Your task to perform on an android device: Play the new Demi Lovato video on YouTube Image 0: 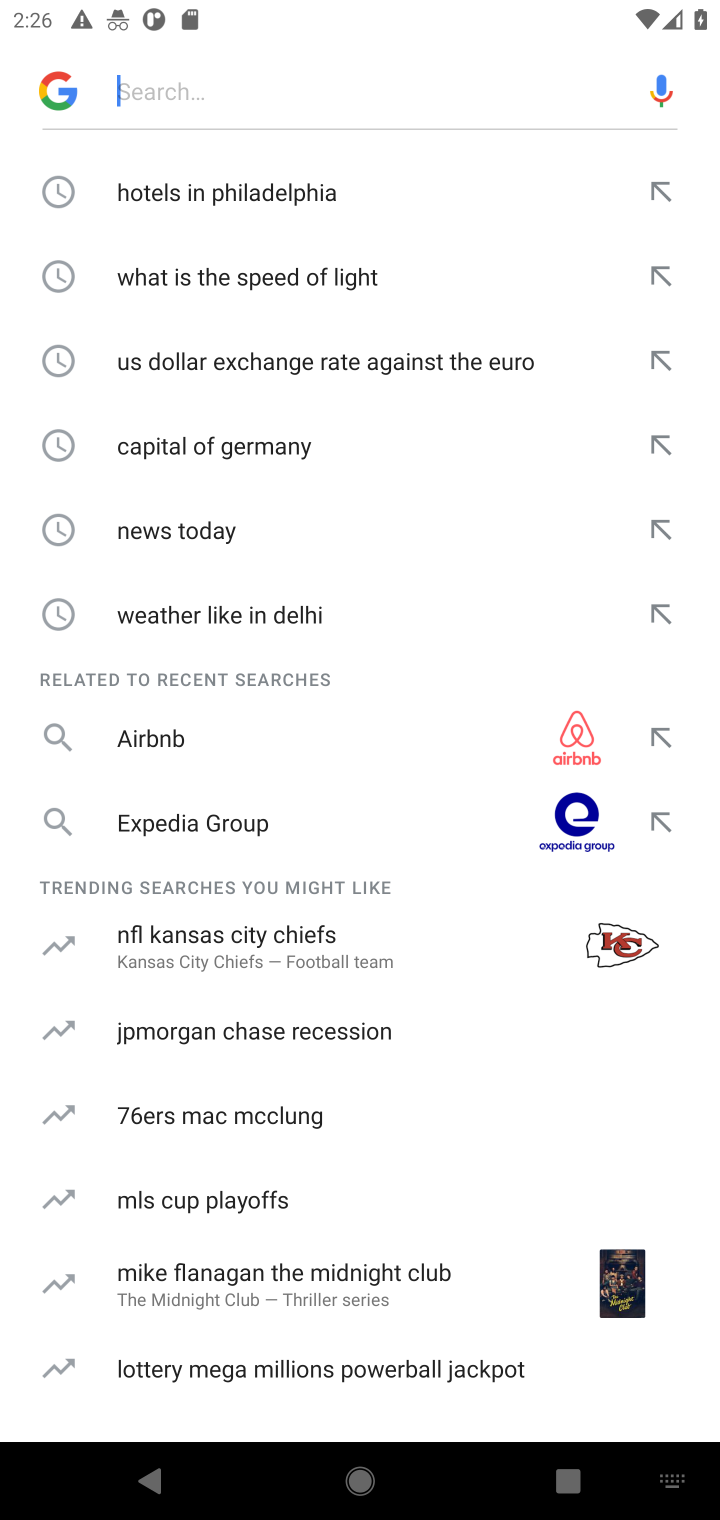
Step 0: press home button
Your task to perform on an android device: Play the new Demi Lovato video on YouTube Image 1: 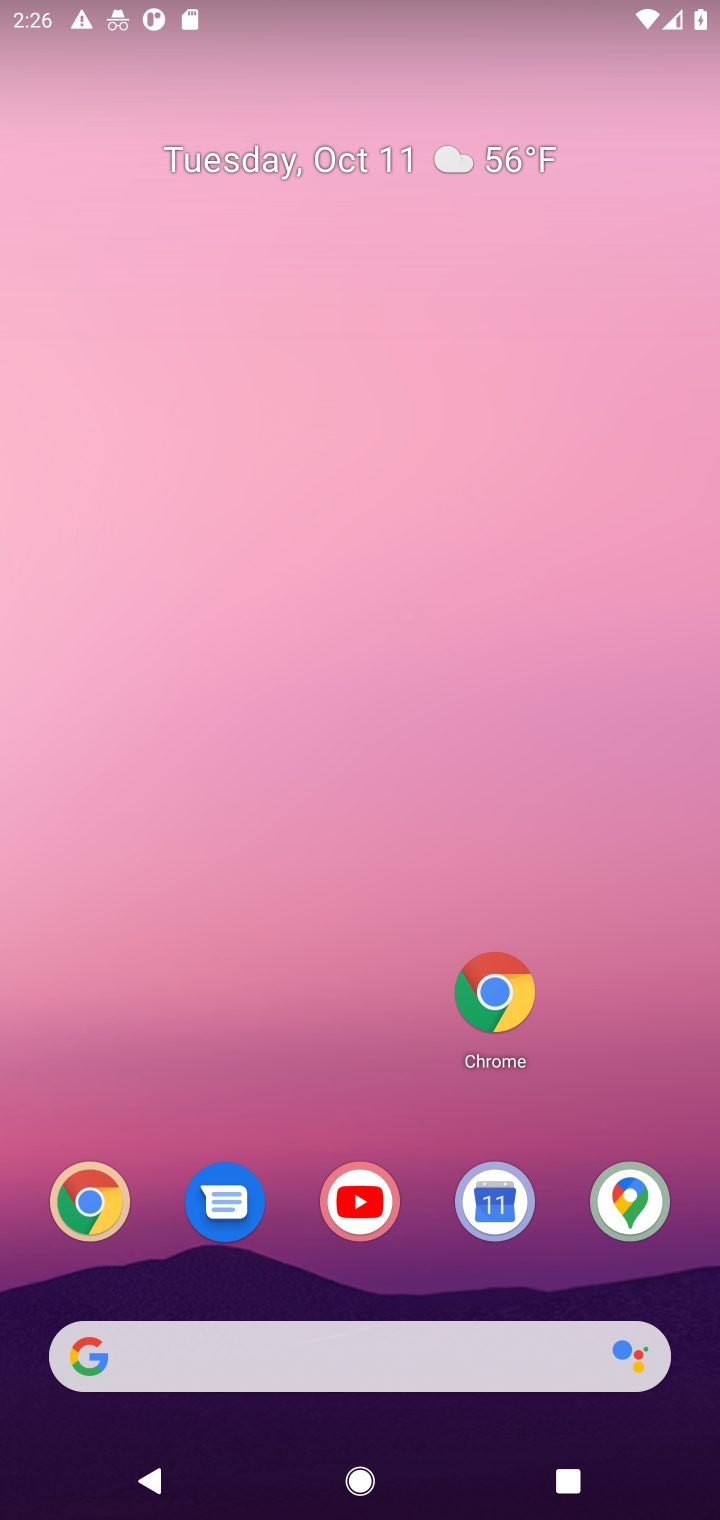
Step 1: click (499, 989)
Your task to perform on an android device: Play the new Demi Lovato video on YouTube Image 2: 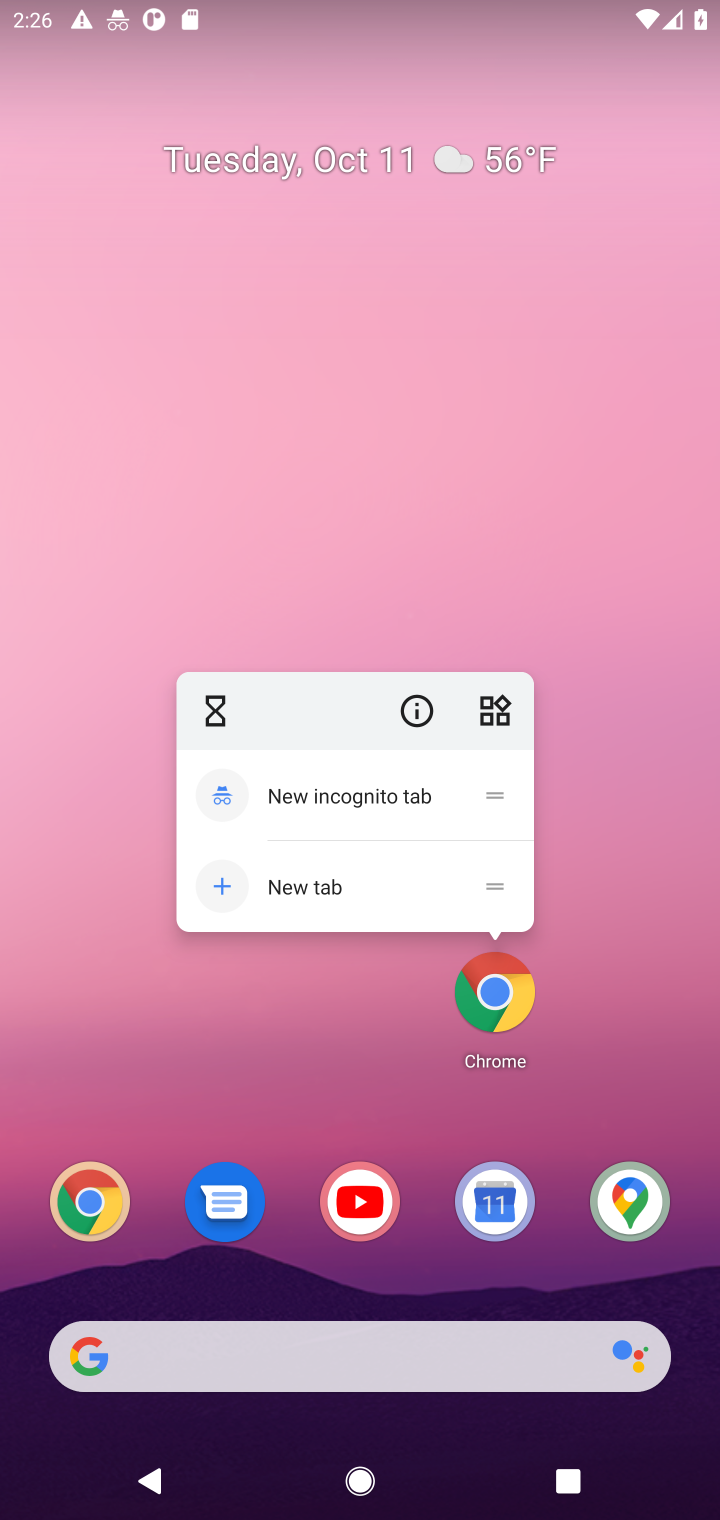
Step 2: click (499, 990)
Your task to perform on an android device: Play the new Demi Lovato video on YouTube Image 3: 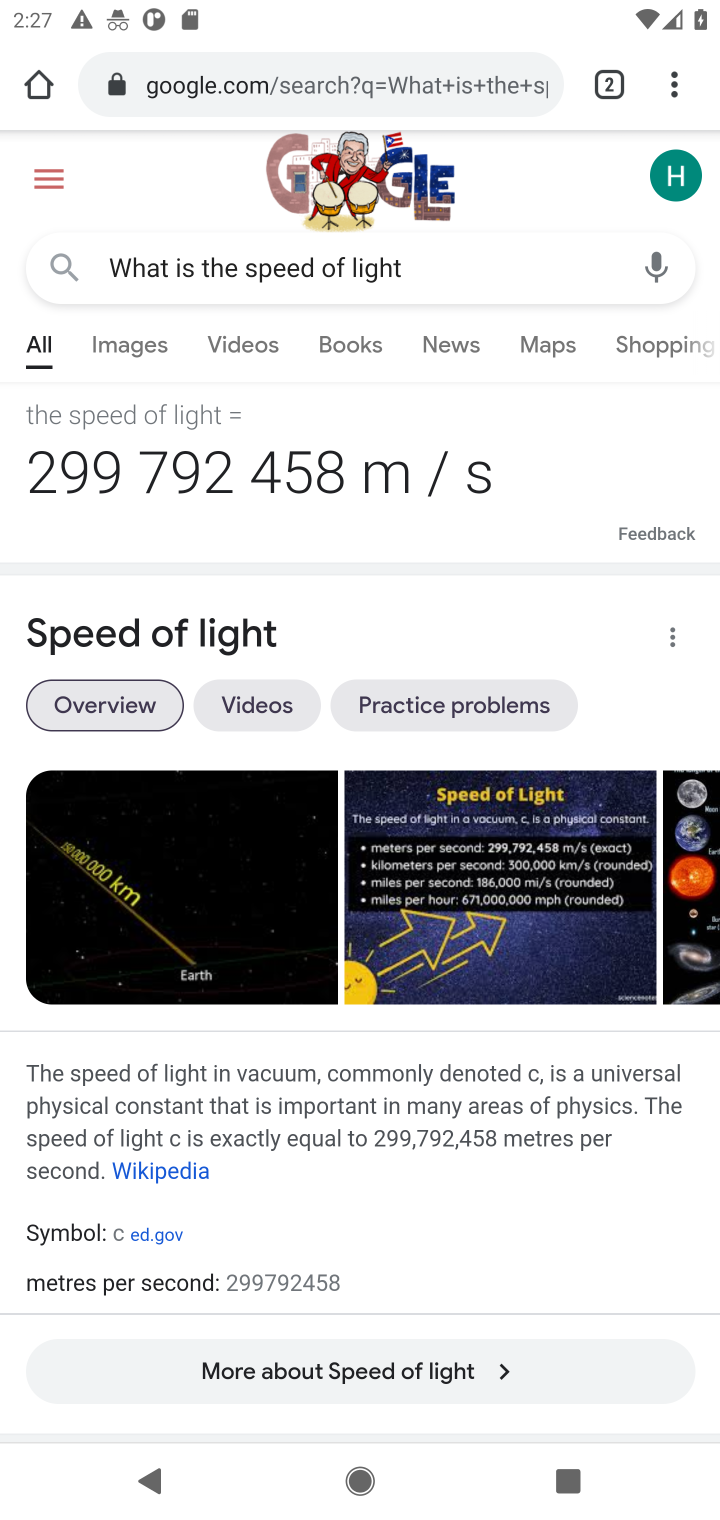
Step 3: press home button
Your task to perform on an android device: Play the new Demi Lovato video on YouTube Image 4: 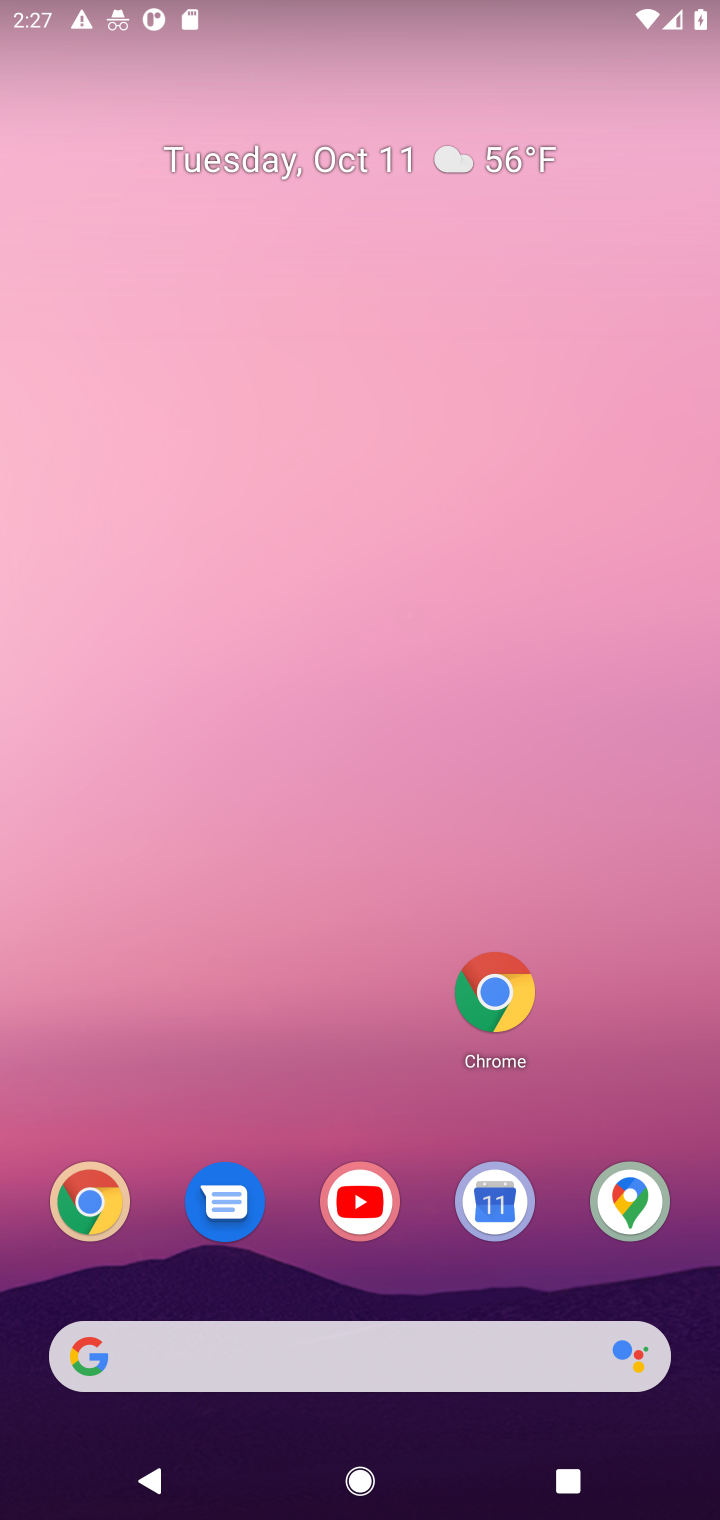
Step 4: click (353, 1205)
Your task to perform on an android device: Play the new Demi Lovato video on YouTube Image 5: 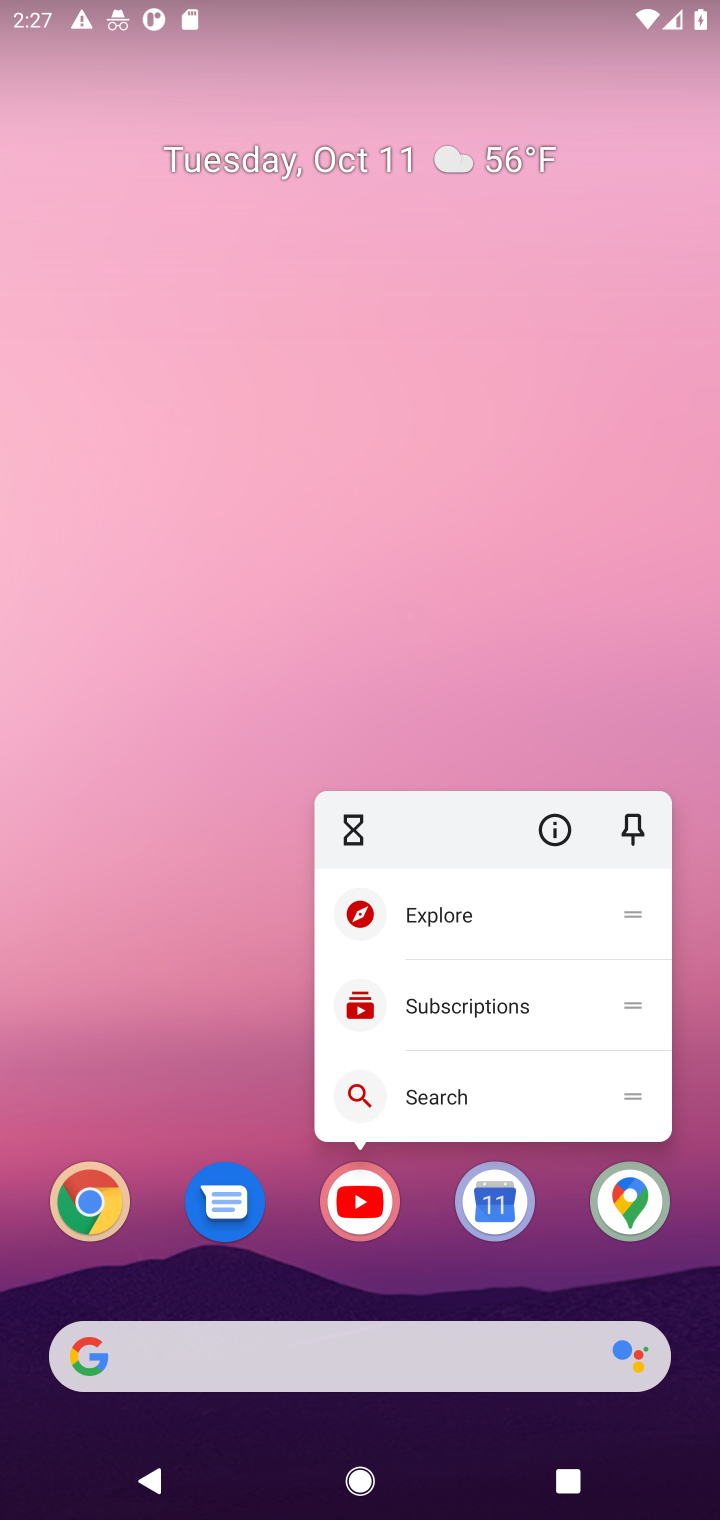
Step 5: click (353, 1205)
Your task to perform on an android device: Play the new Demi Lovato video on YouTube Image 6: 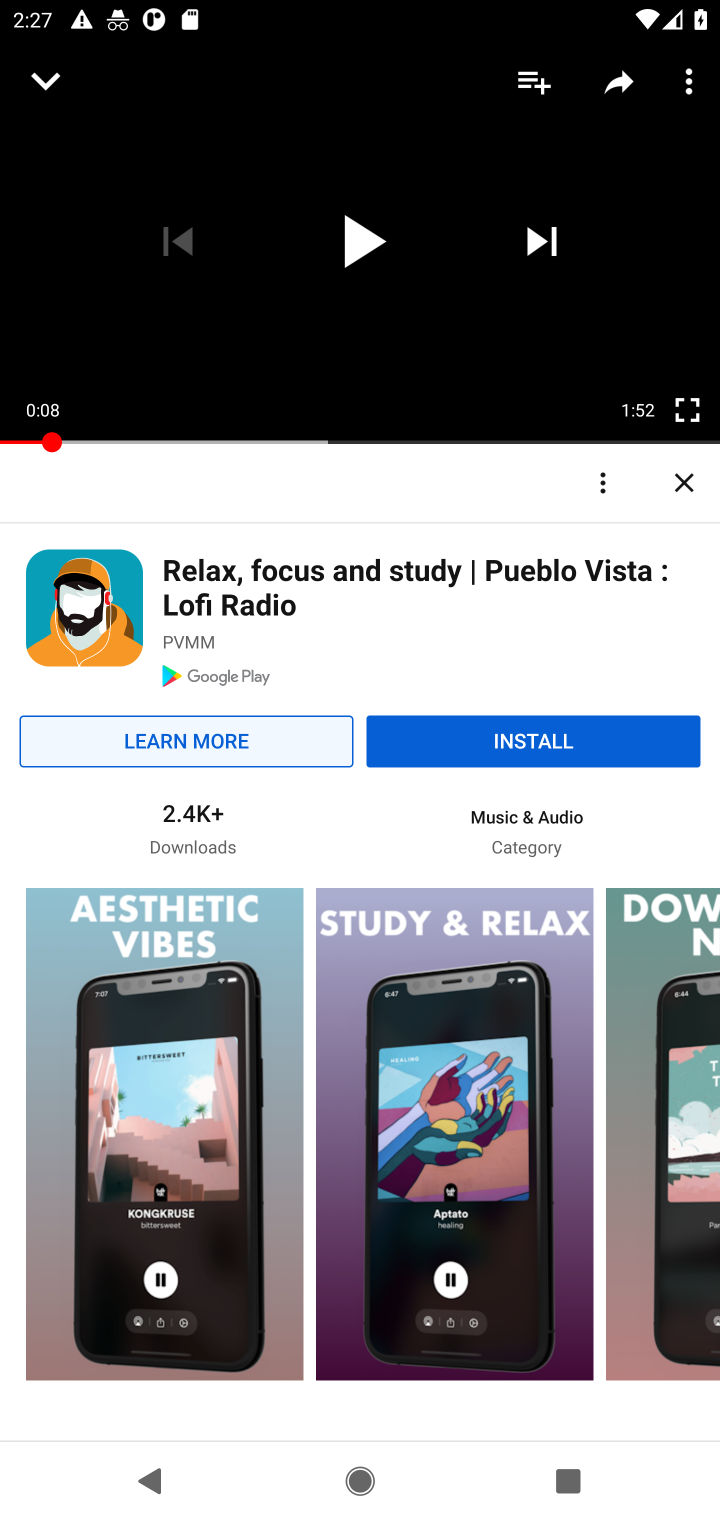
Step 6: press back button
Your task to perform on an android device: Play the new Demi Lovato video on YouTube Image 7: 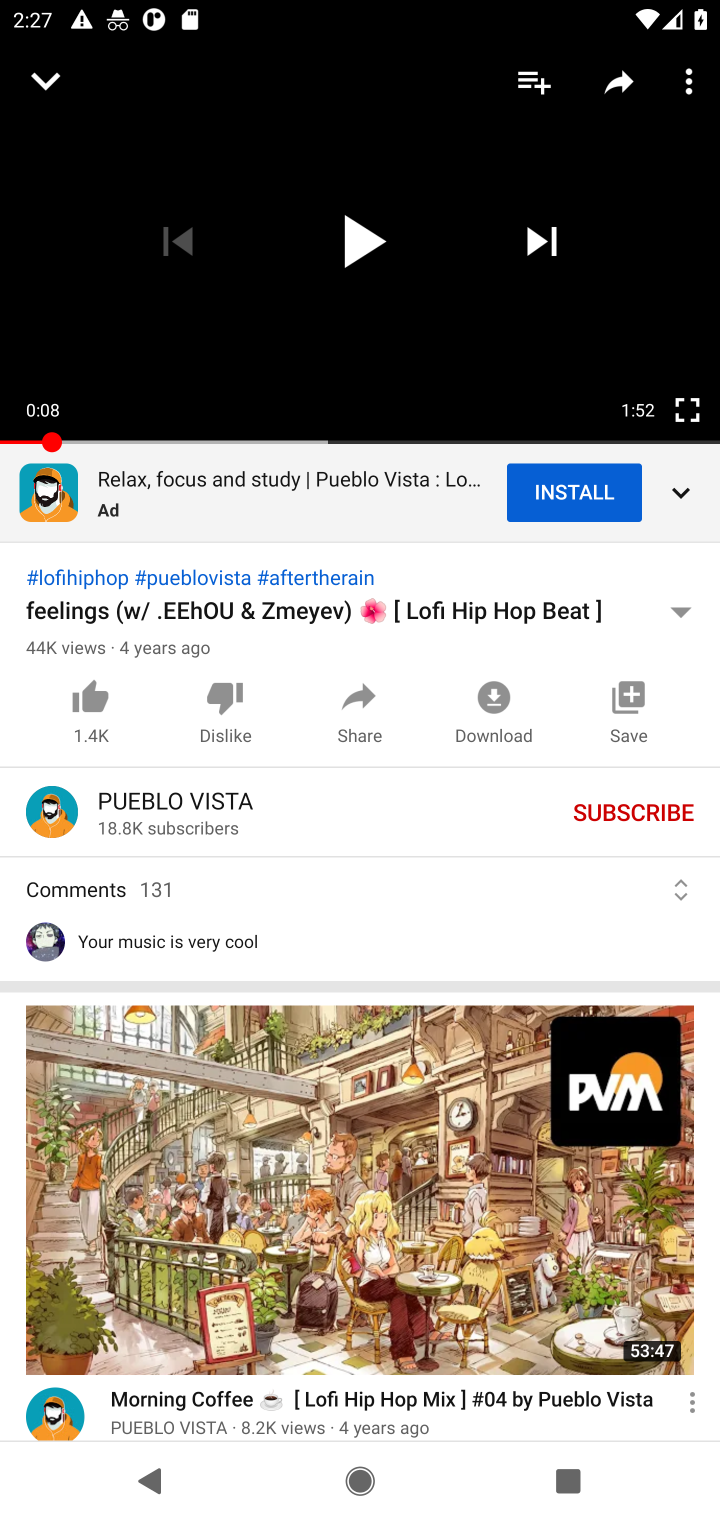
Step 7: press back button
Your task to perform on an android device: Play the new Demi Lovato video on YouTube Image 8: 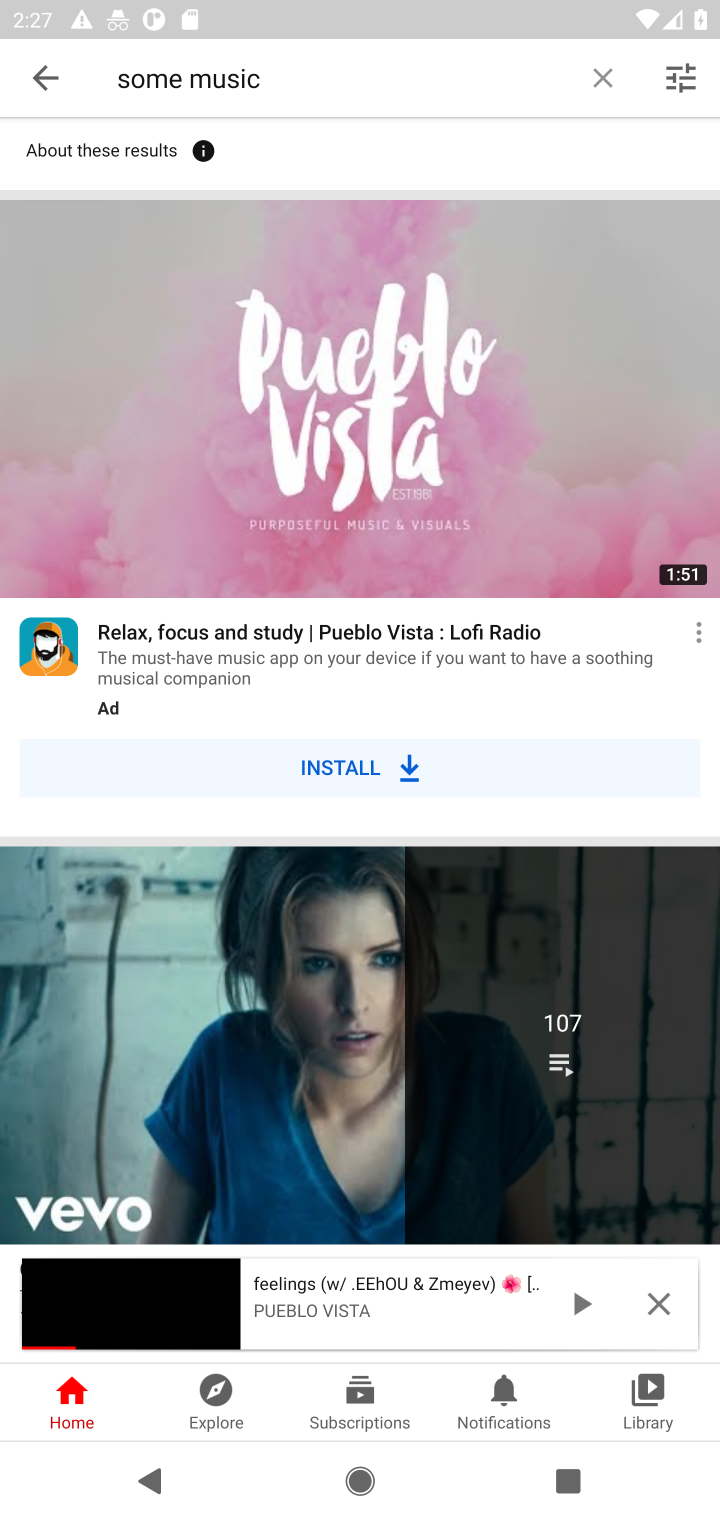
Step 8: click (598, 82)
Your task to perform on an android device: Play the new Demi Lovato video on YouTube Image 9: 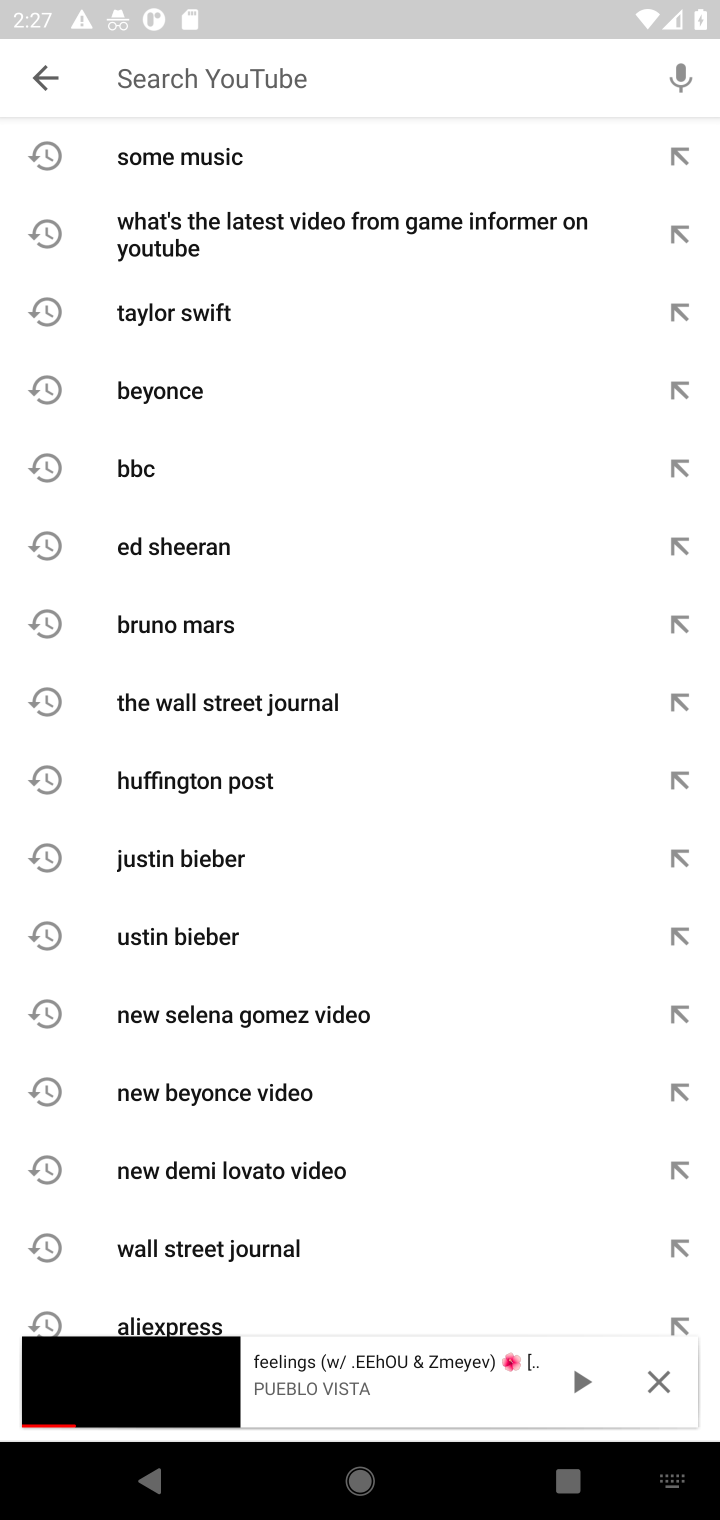
Step 9: type "Demi Lovato video"
Your task to perform on an android device: Play the new Demi Lovato video on YouTube Image 10: 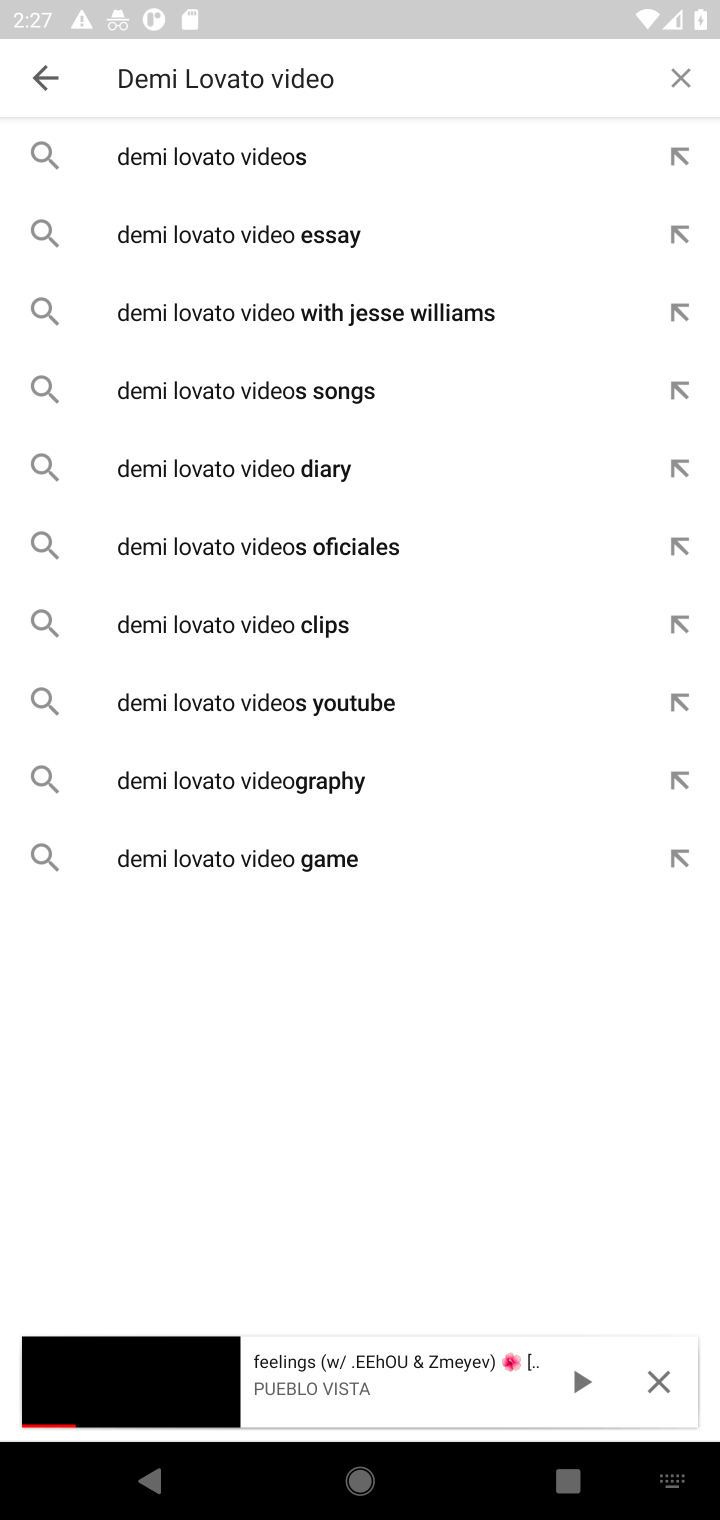
Step 10: press enter
Your task to perform on an android device: Play the new Demi Lovato video on YouTube Image 11: 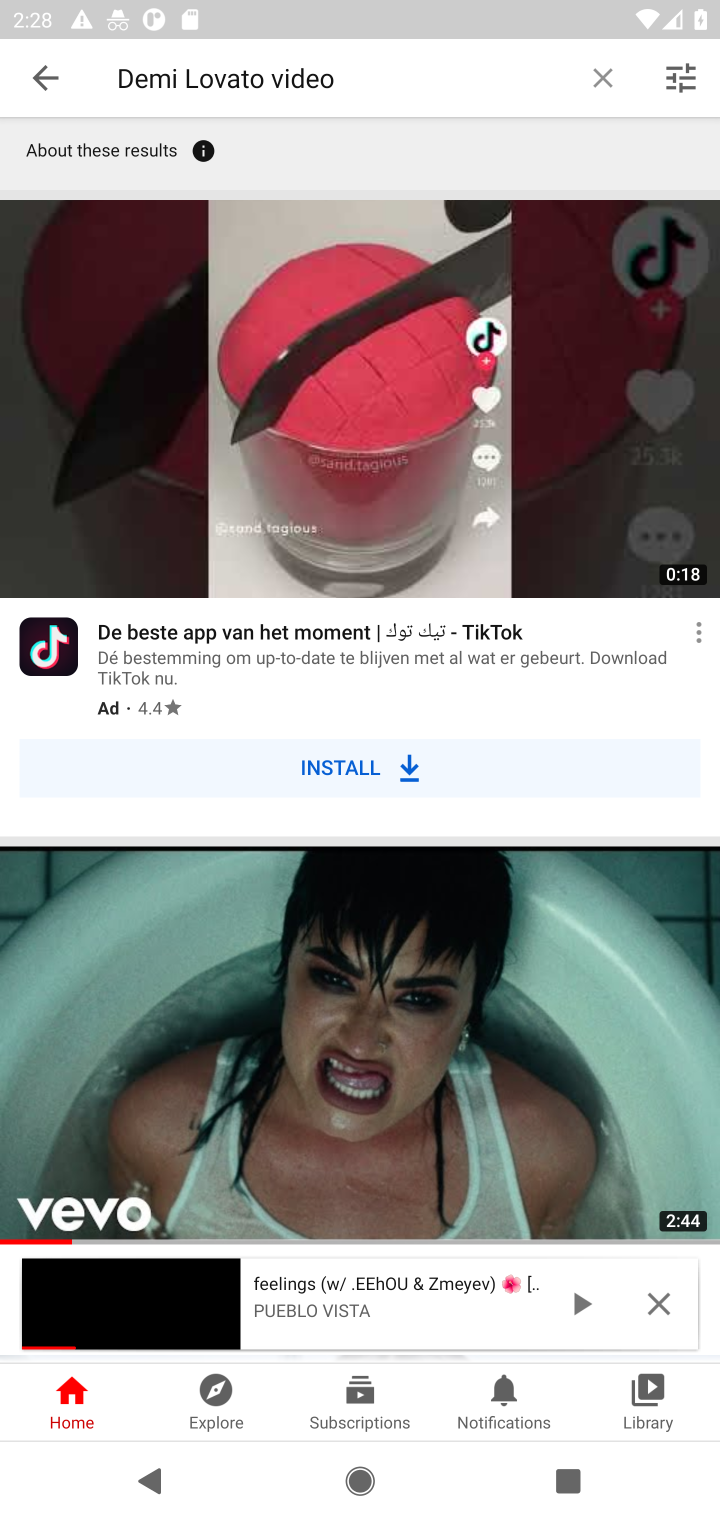
Step 11: drag from (422, 973) to (677, 187)
Your task to perform on an android device: Play the new Demi Lovato video on YouTube Image 12: 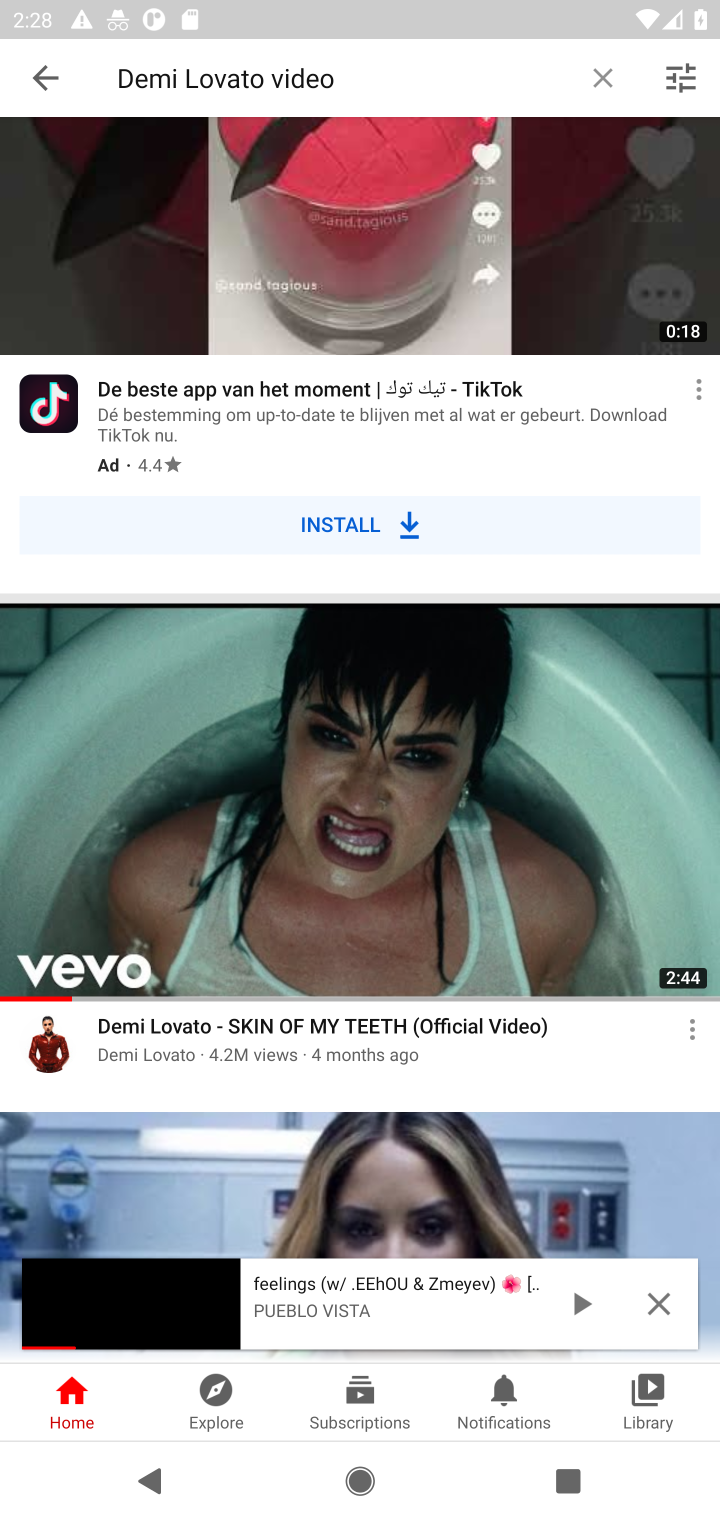
Step 12: click (656, 1306)
Your task to perform on an android device: Play the new Demi Lovato video on YouTube Image 13: 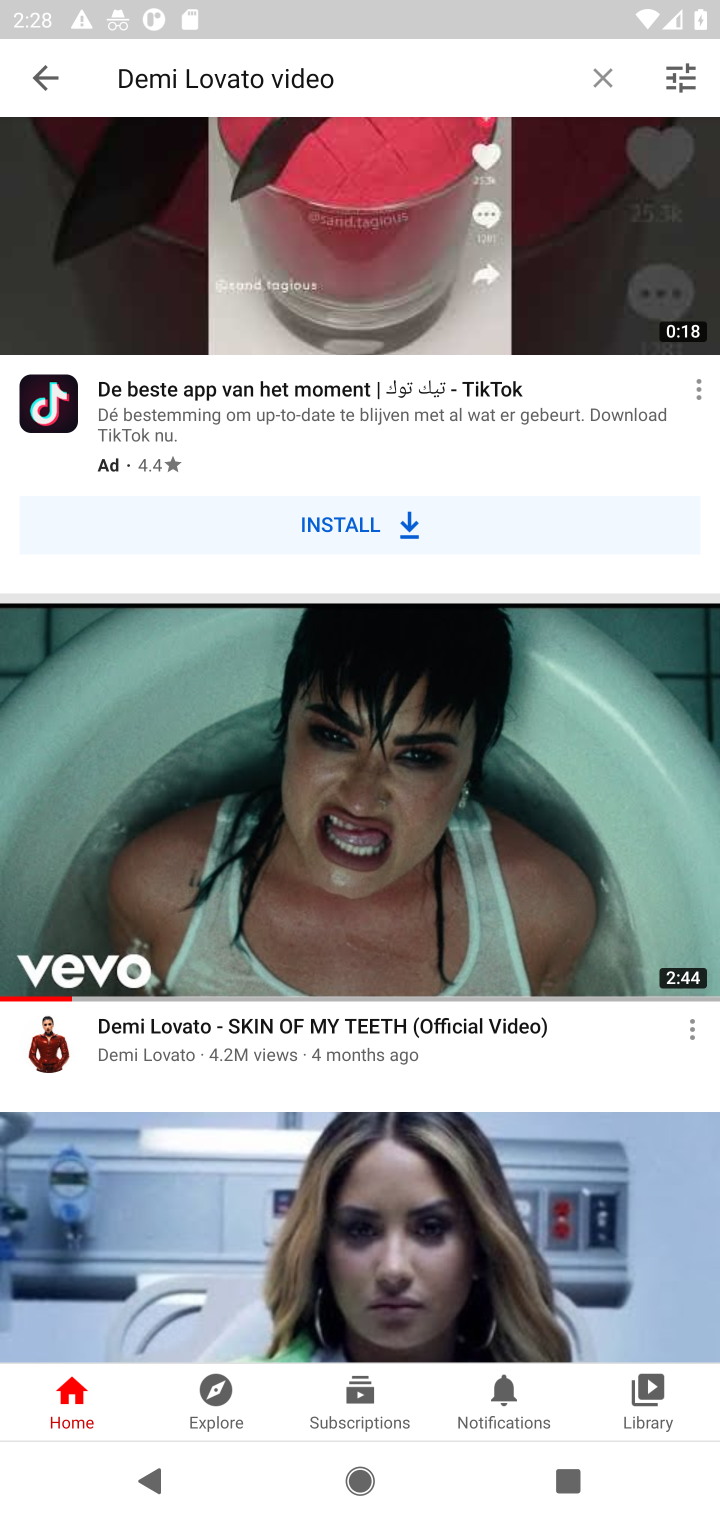
Step 13: drag from (469, 1155) to (683, 371)
Your task to perform on an android device: Play the new Demi Lovato video on YouTube Image 14: 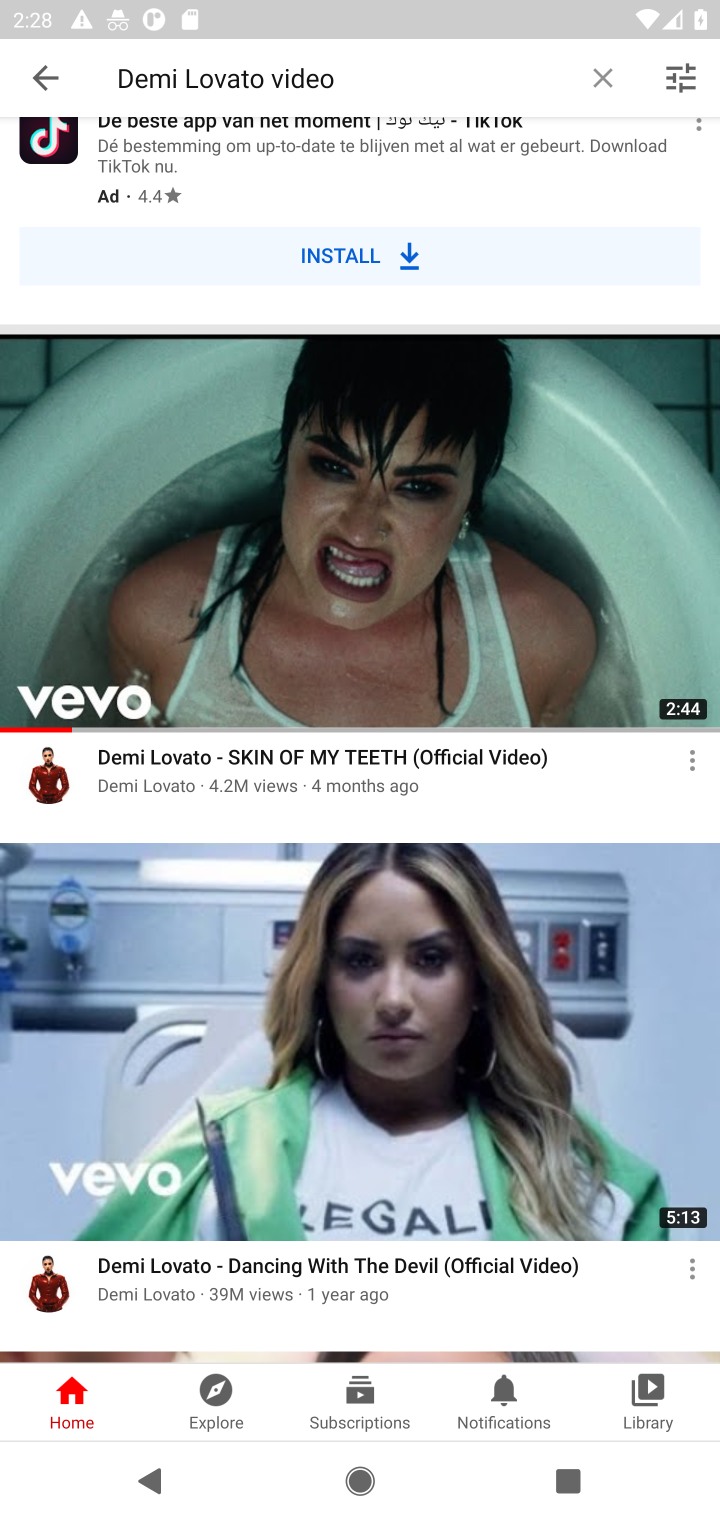
Step 14: click (399, 1071)
Your task to perform on an android device: Play the new Demi Lovato video on YouTube Image 15: 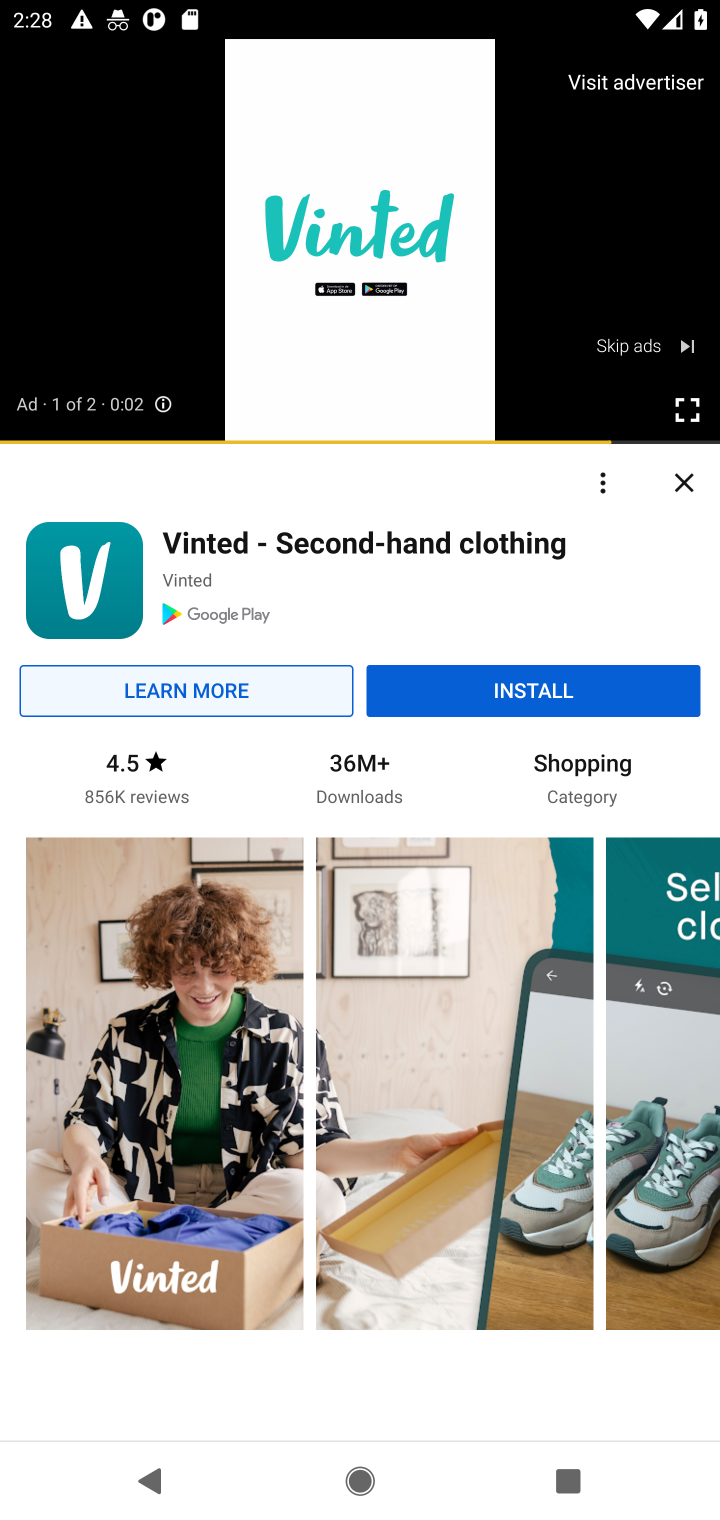
Step 15: click (333, 192)
Your task to perform on an android device: Play the new Demi Lovato video on YouTube Image 16: 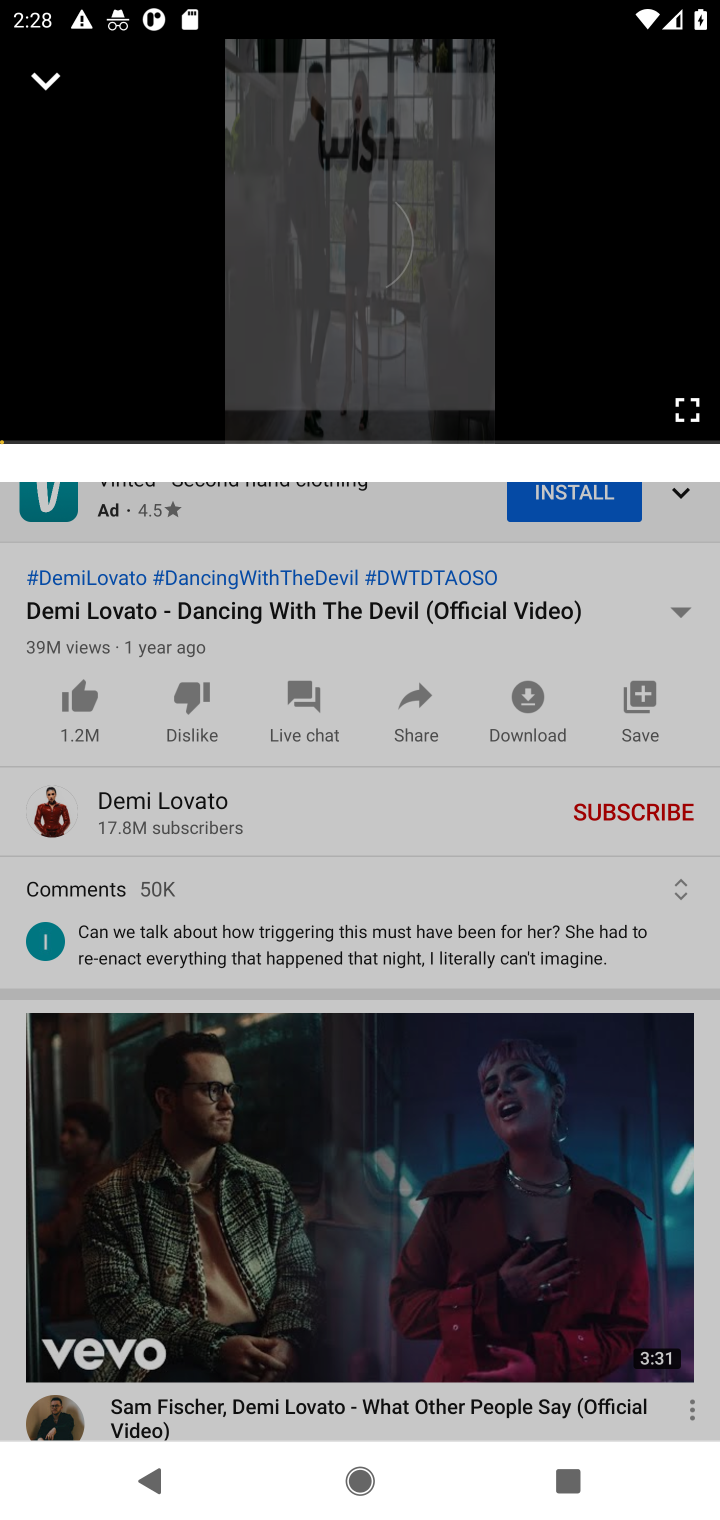
Step 16: click (380, 200)
Your task to perform on an android device: Play the new Demi Lovato video on YouTube Image 17: 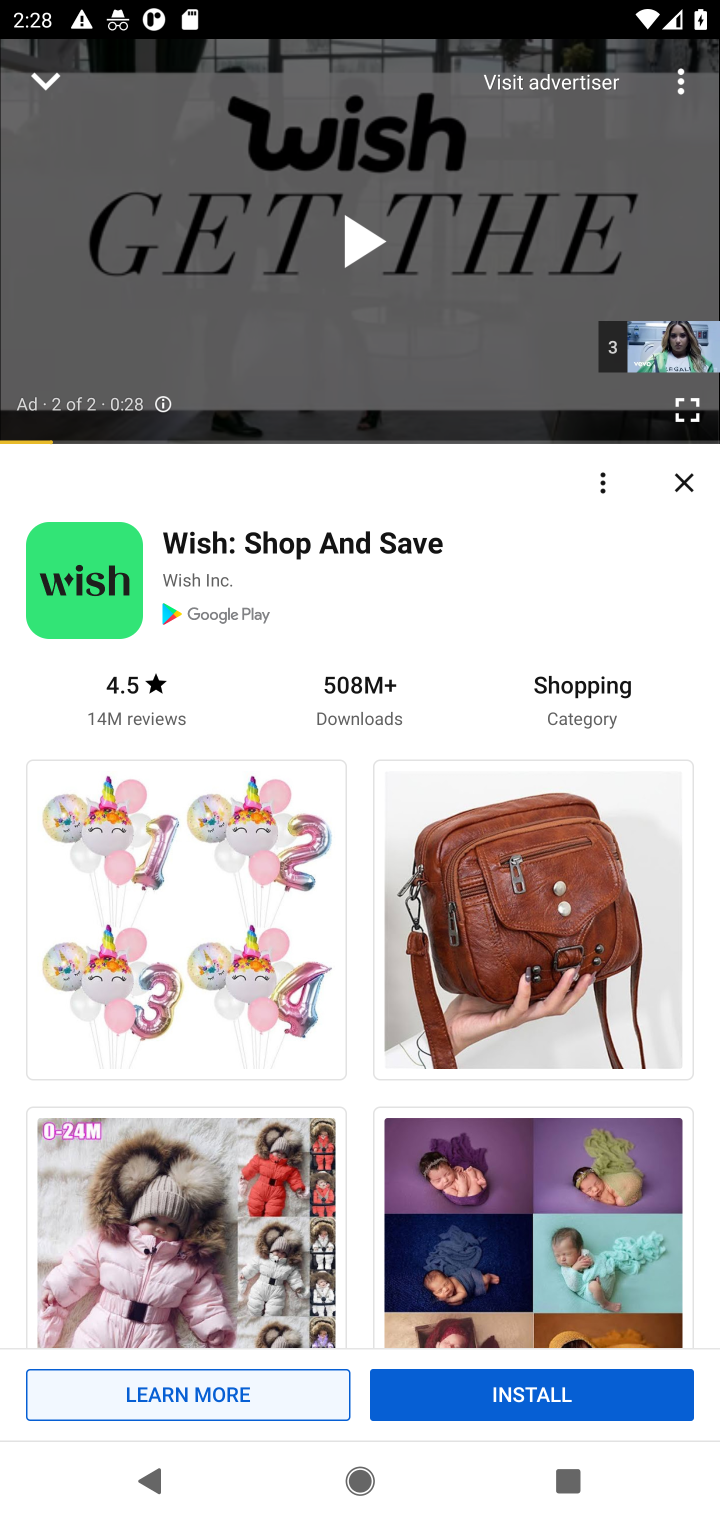
Step 17: click (366, 233)
Your task to perform on an android device: Play the new Demi Lovato video on YouTube Image 18: 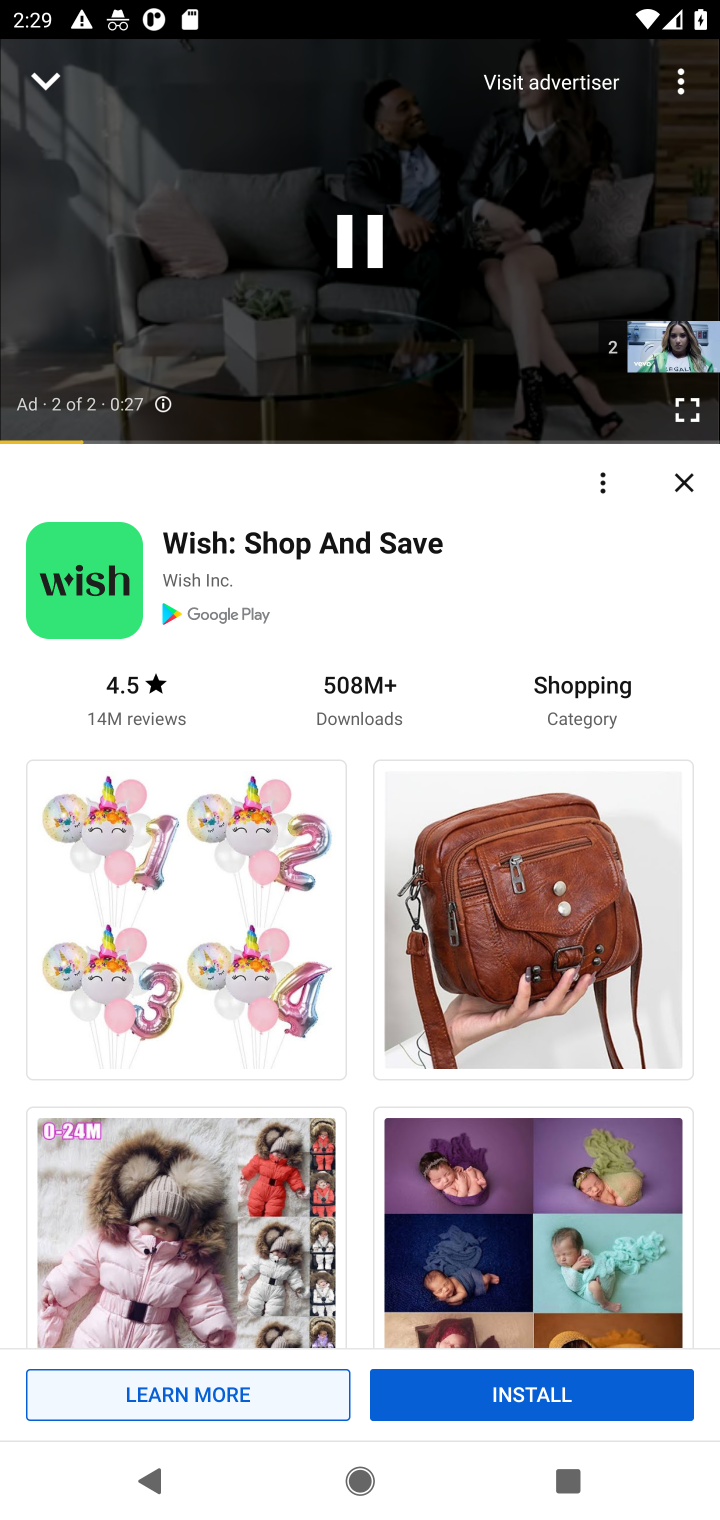
Step 18: task complete